Your task to perform on an android device: Go to Wikipedia Image 0: 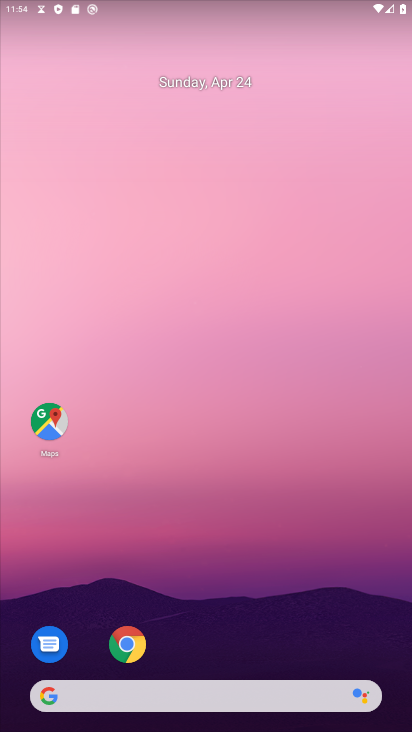
Step 0: click (132, 648)
Your task to perform on an android device: Go to Wikipedia Image 1: 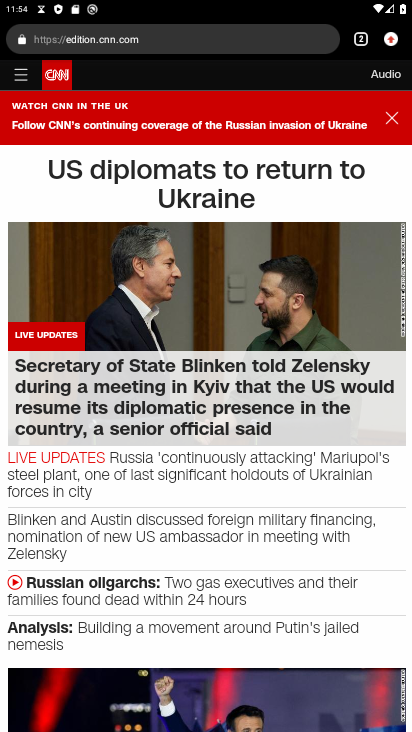
Step 1: click (88, 40)
Your task to perform on an android device: Go to Wikipedia Image 2: 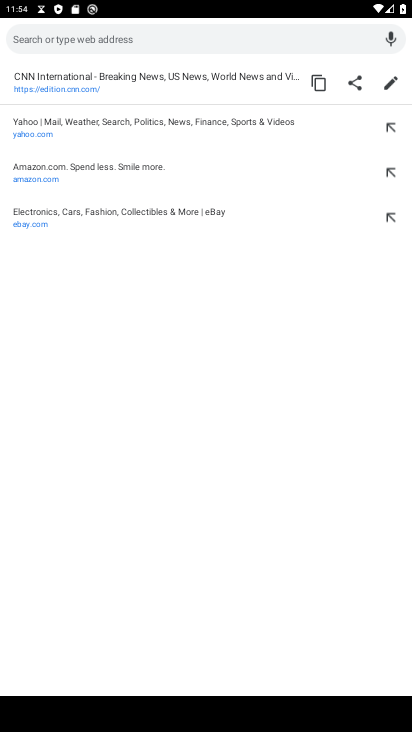
Step 2: type "wikipedia"
Your task to perform on an android device: Go to Wikipedia Image 3: 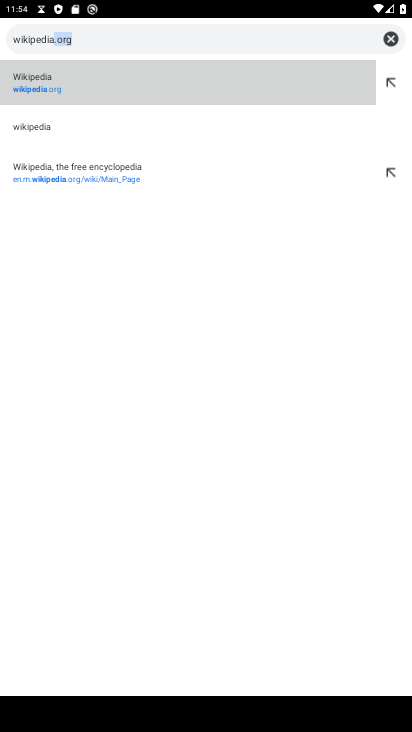
Step 3: click (24, 92)
Your task to perform on an android device: Go to Wikipedia Image 4: 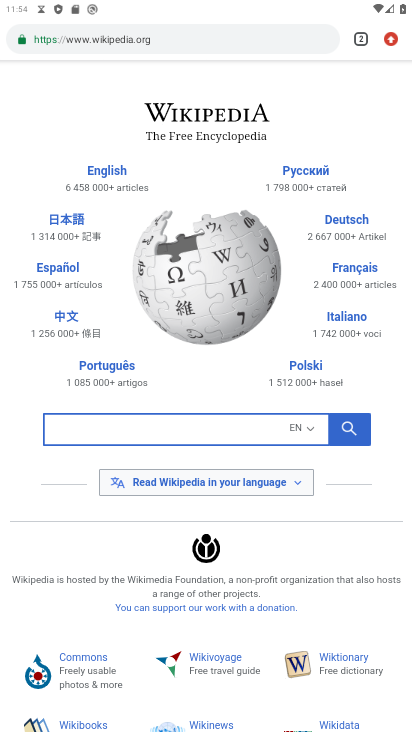
Step 4: task complete